Your task to perform on an android device: open device folders in google photos Image 0: 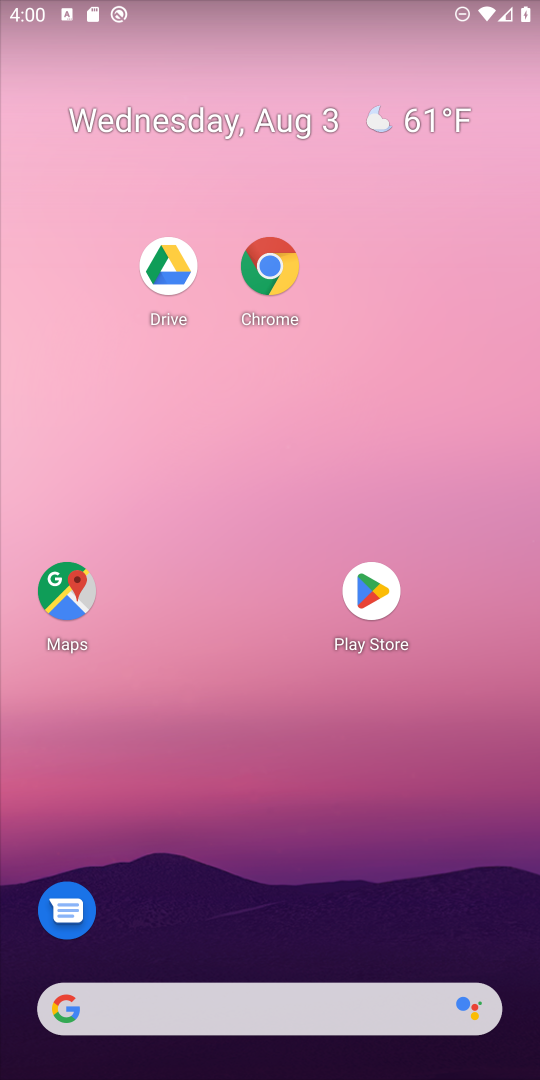
Step 0: drag from (276, 988) to (482, 125)
Your task to perform on an android device: open device folders in google photos Image 1: 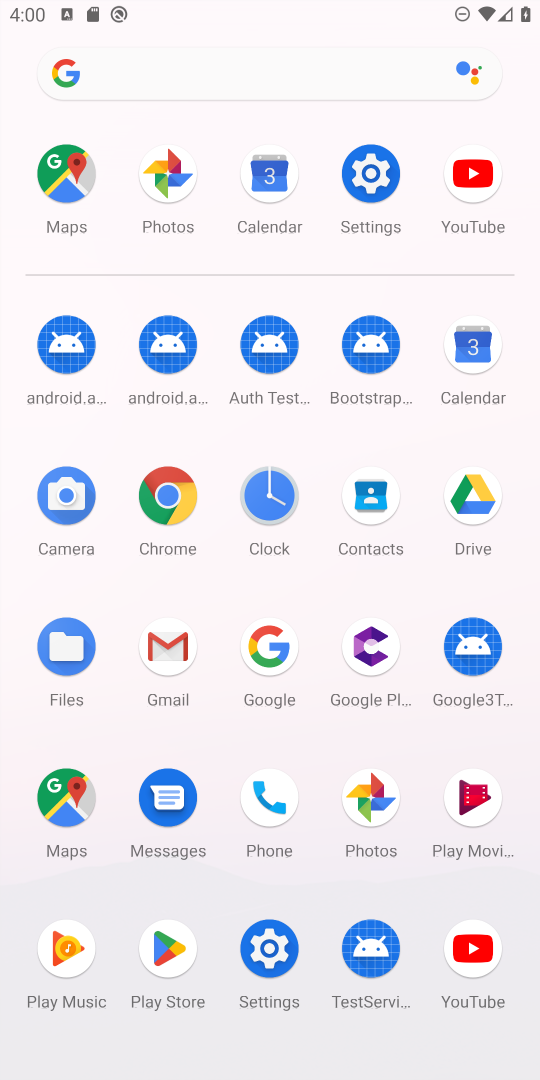
Step 1: click (373, 802)
Your task to perform on an android device: open device folders in google photos Image 2: 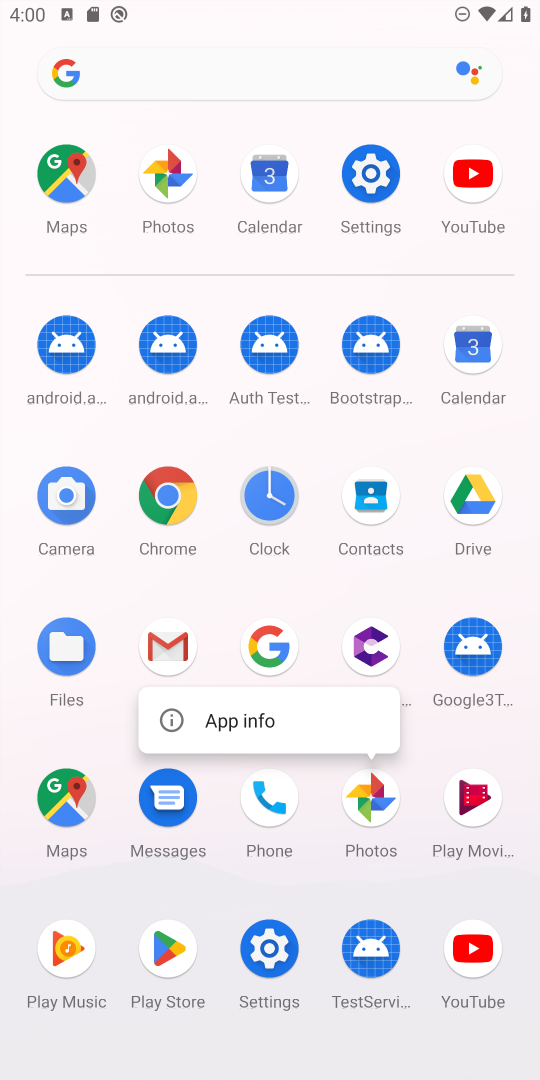
Step 2: click (368, 800)
Your task to perform on an android device: open device folders in google photos Image 3: 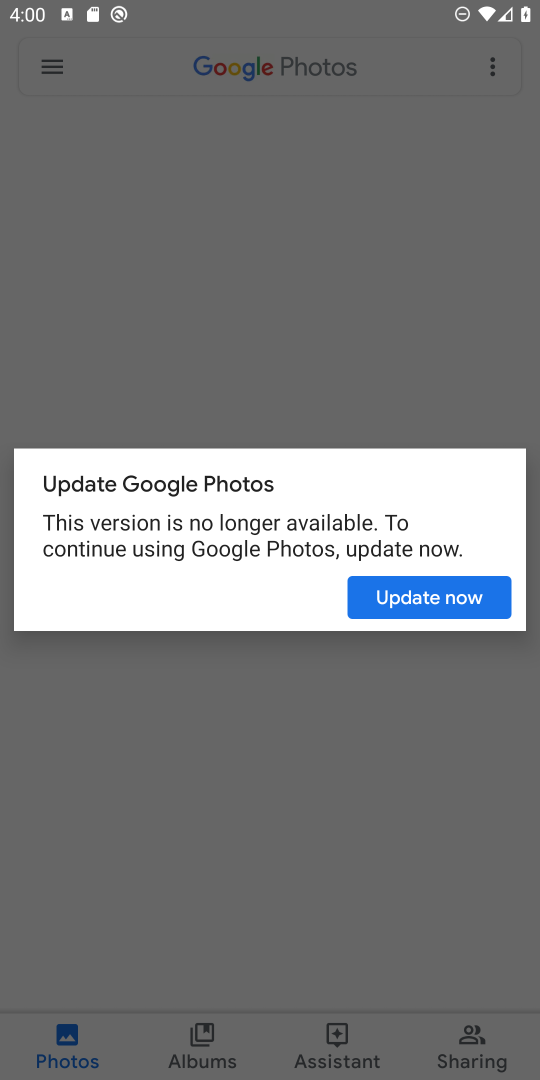
Step 3: click (415, 596)
Your task to perform on an android device: open device folders in google photos Image 4: 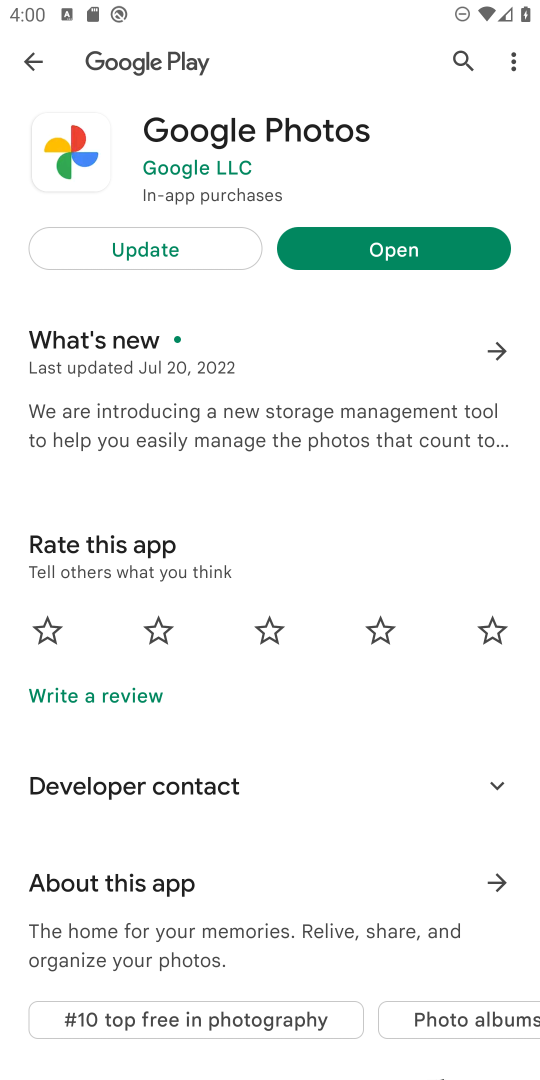
Step 4: click (195, 248)
Your task to perform on an android device: open device folders in google photos Image 5: 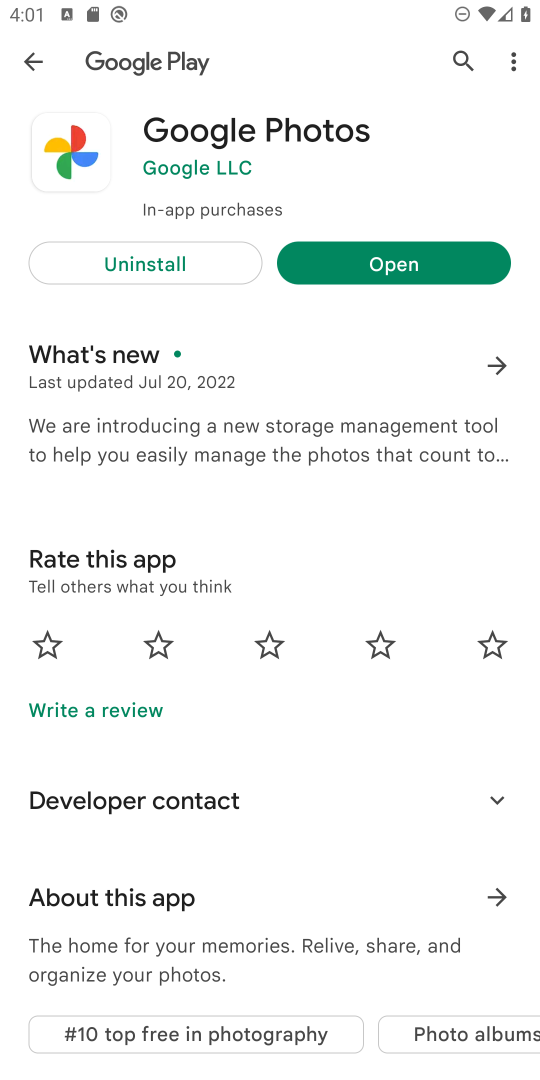
Step 5: click (426, 272)
Your task to perform on an android device: open device folders in google photos Image 6: 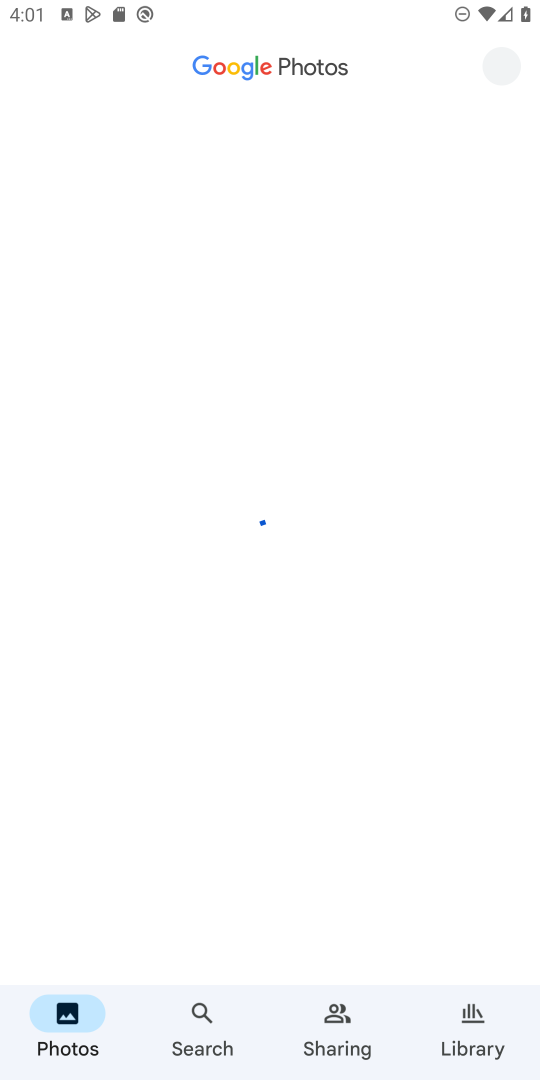
Step 6: click (490, 1017)
Your task to perform on an android device: open device folders in google photos Image 7: 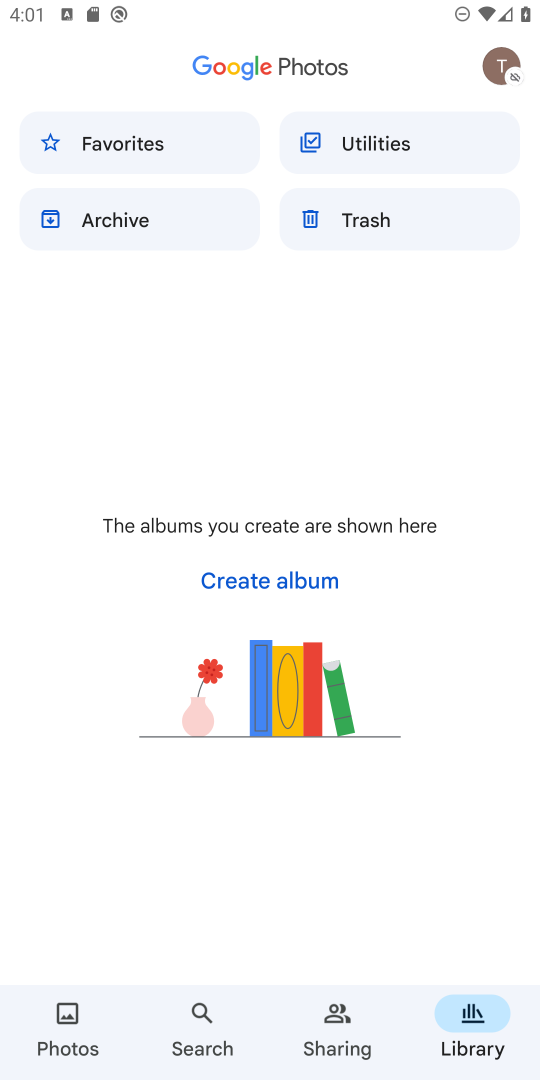
Step 7: task complete